Your task to perform on an android device: turn vacation reply on in the gmail app Image 0: 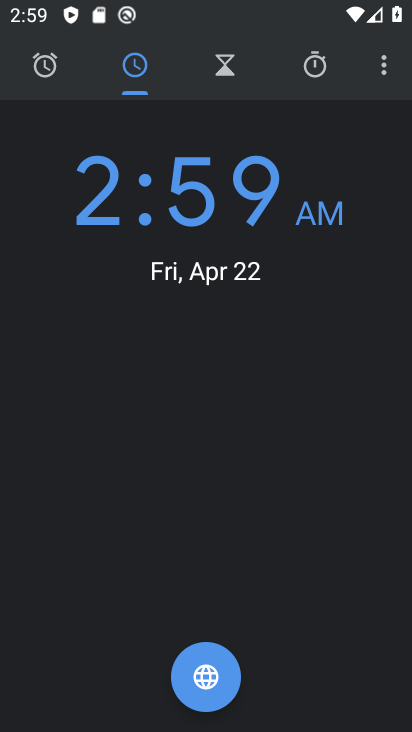
Step 0: press home button
Your task to perform on an android device: turn vacation reply on in the gmail app Image 1: 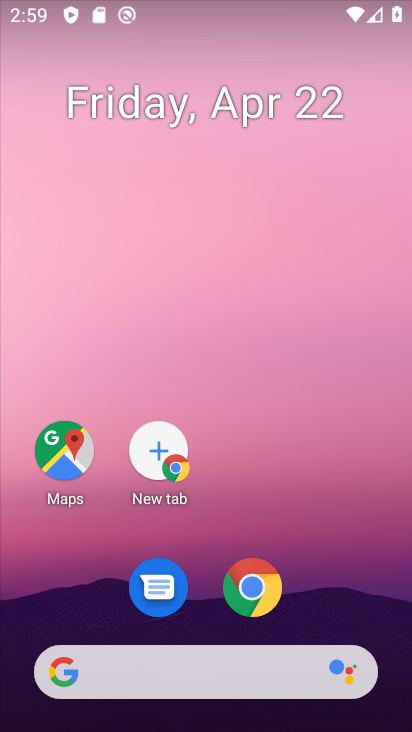
Step 1: drag from (204, 615) to (184, 178)
Your task to perform on an android device: turn vacation reply on in the gmail app Image 2: 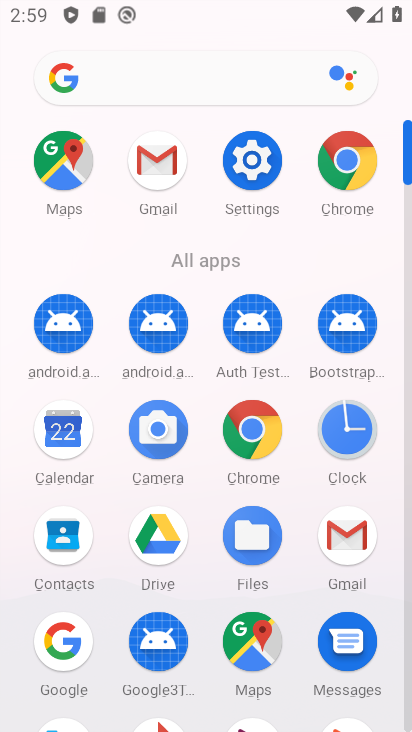
Step 2: click (164, 174)
Your task to perform on an android device: turn vacation reply on in the gmail app Image 3: 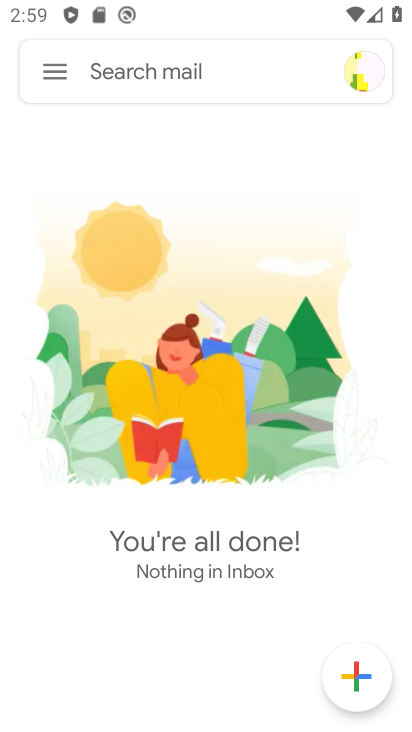
Step 3: click (53, 74)
Your task to perform on an android device: turn vacation reply on in the gmail app Image 4: 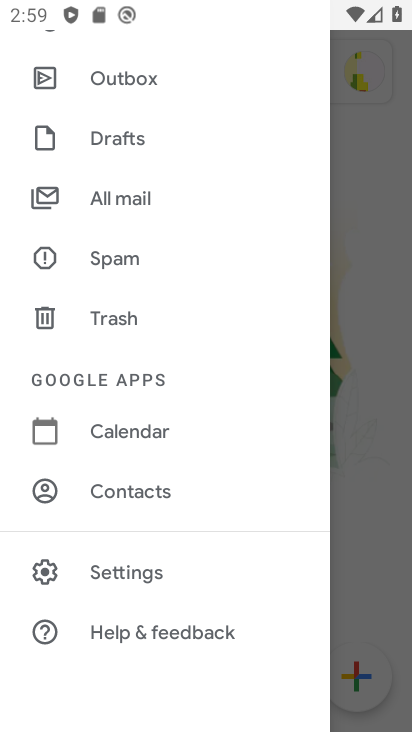
Step 4: click (115, 571)
Your task to perform on an android device: turn vacation reply on in the gmail app Image 5: 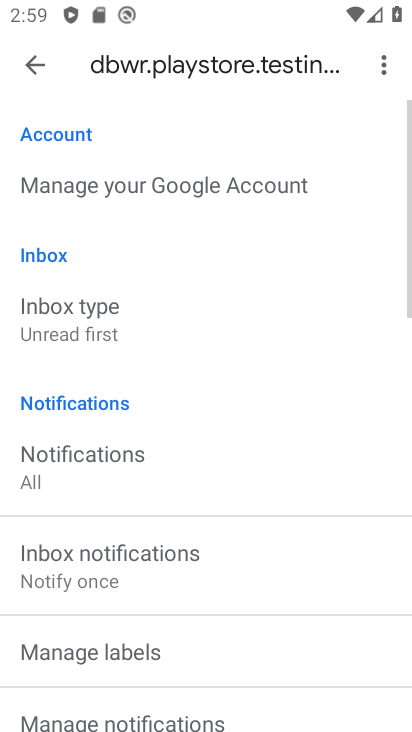
Step 5: drag from (115, 571) to (122, 237)
Your task to perform on an android device: turn vacation reply on in the gmail app Image 6: 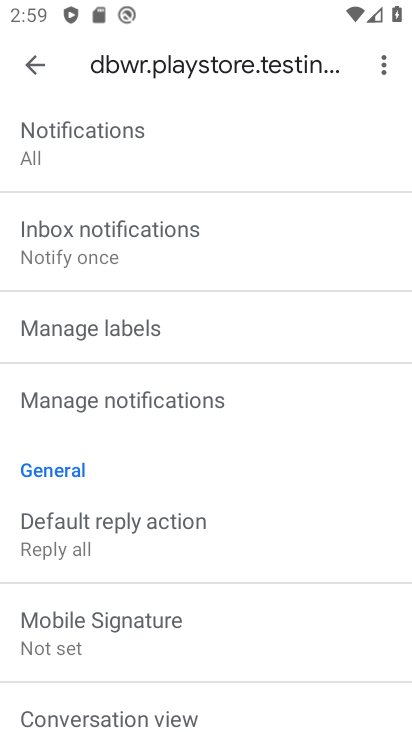
Step 6: drag from (23, 600) to (113, 233)
Your task to perform on an android device: turn vacation reply on in the gmail app Image 7: 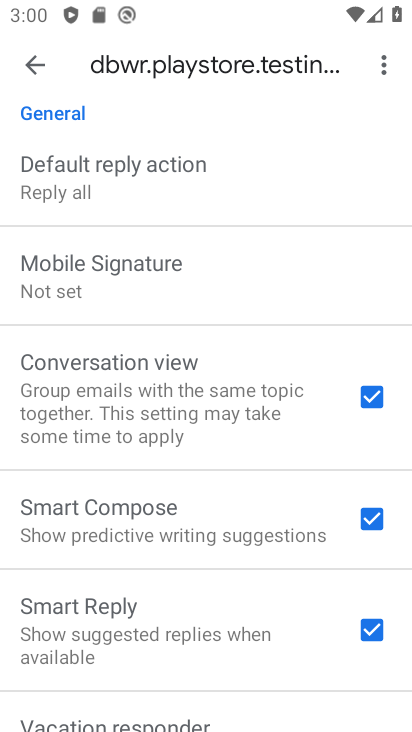
Step 7: drag from (158, 604) to (194, 250)
Your task to perform on an android device: turn vacation reply on in the gmail app Image 8: 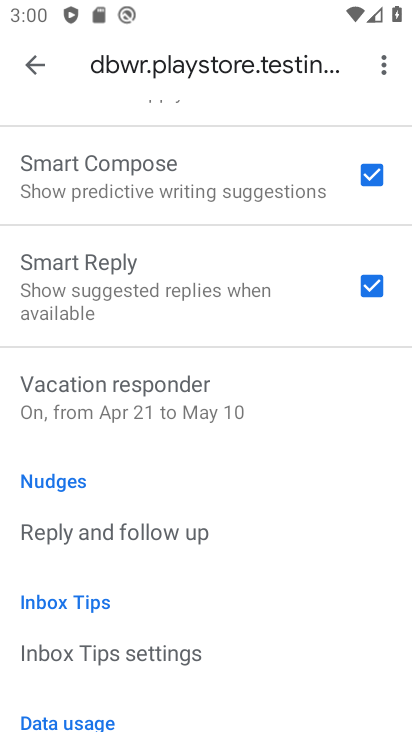
Step 8: click (178, 426)
Your task to perform on an android device: turn vacation reply on in the gmail app Image 9: 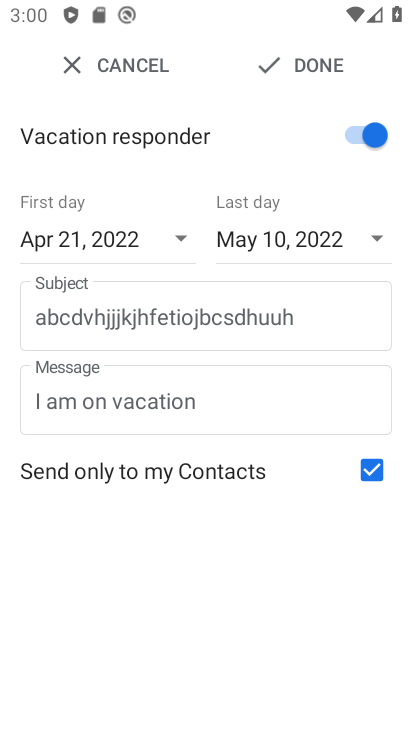
Step 9: click (327, 66)
Your task to perform on an android device: turn vacation reply on in the gmail app Image 10: 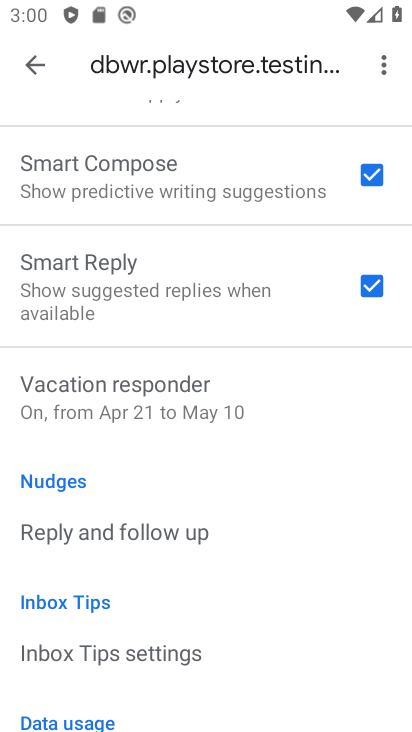
Step 10: task complete